Your task to perform on an android device: choose inbox layout in the gmail app Image 0: 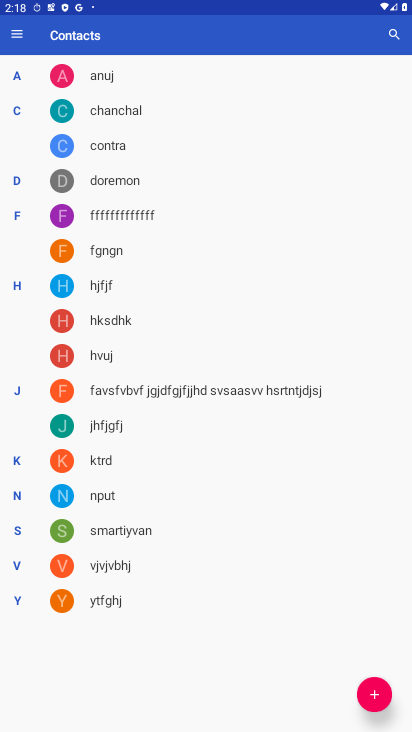
Step 0: press home button
Your task to perform on an android device: choose inbox layout in the gmail app Image 1: 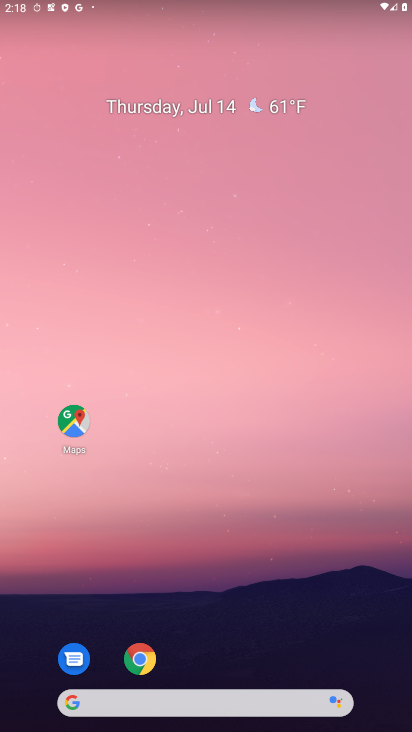
Step 1: drag from (198, 673) to (187, 65)
Your task to perform on an android device: choose inbox layout in the gmail app Image 2: 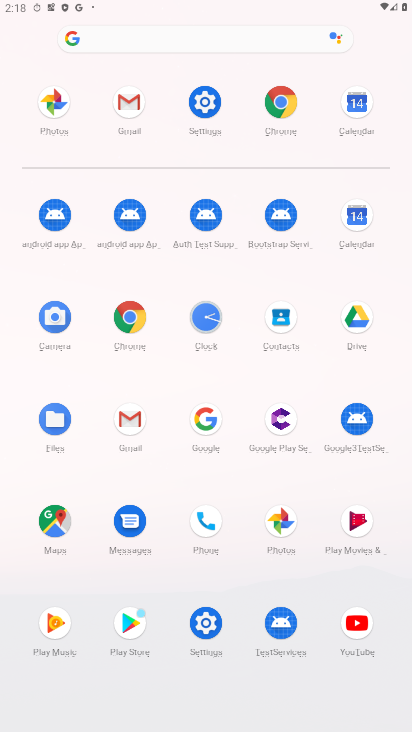
Step 2: click (133, 409)
Your task to perform on an android device: choose inbox layout in the gmail app Image 3: 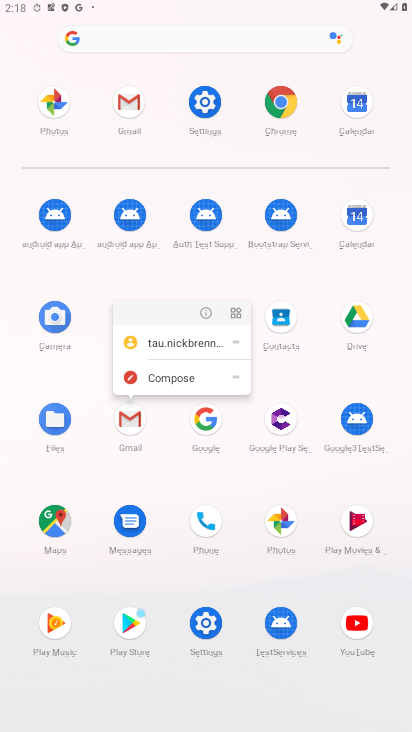
Step 3: click (137, 435)
Your task to perform on an android device: choose inbox layout in the gmail app Image 4: 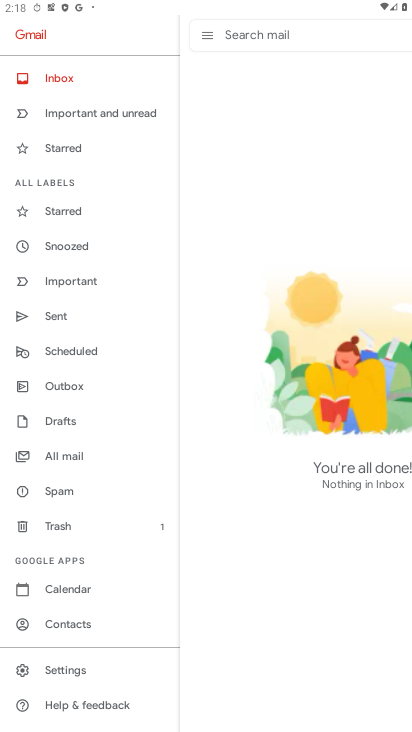
Step 4: click (87, 87)
Your task to perform on an android device: choose inbox layout in the gmail app Image 5: 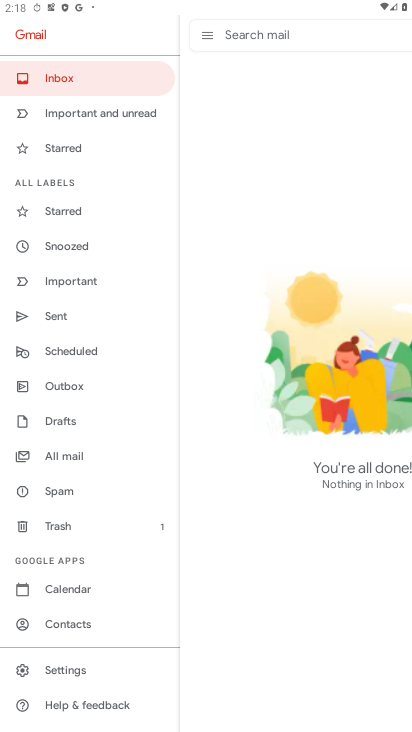
Step 5: task complete